Your task to perform on an android device: change the clock display to show seconds Image 0: 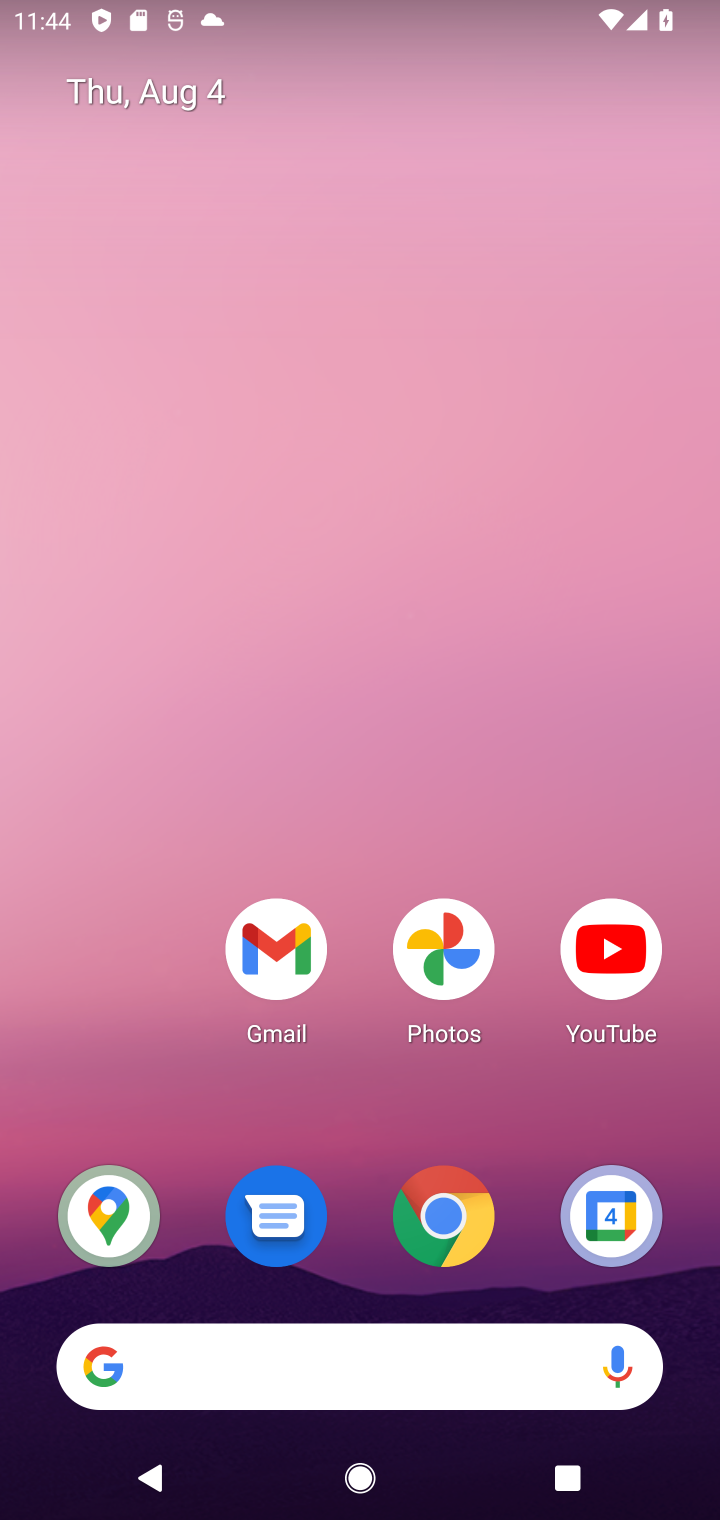
Step 0: drag from (342, 1397) to (396, 268)
Your task to perform on an android device: change the clock display to show seconds Image 1: 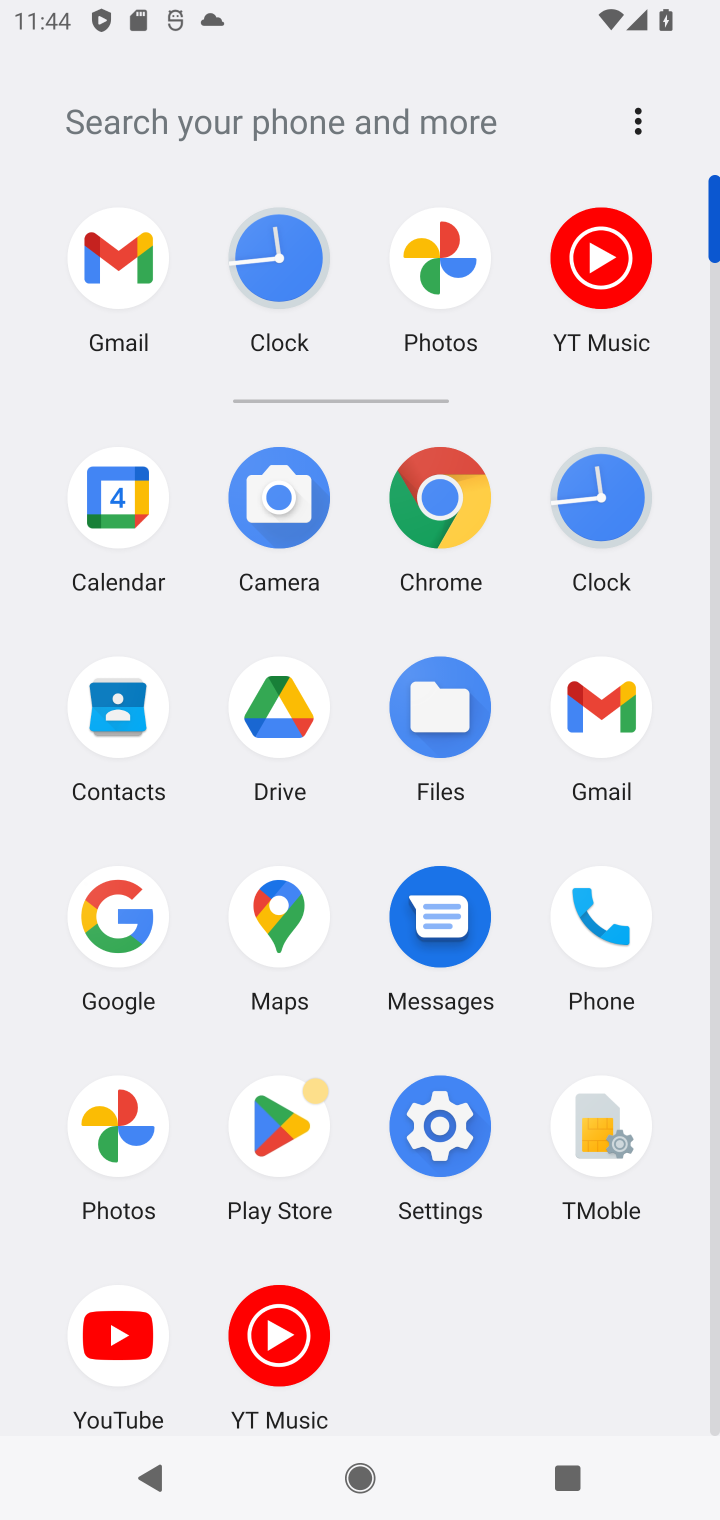
Step 1: click (601, 502)
Your task to perform on an android device: change the clock display to show seconds Image 2: 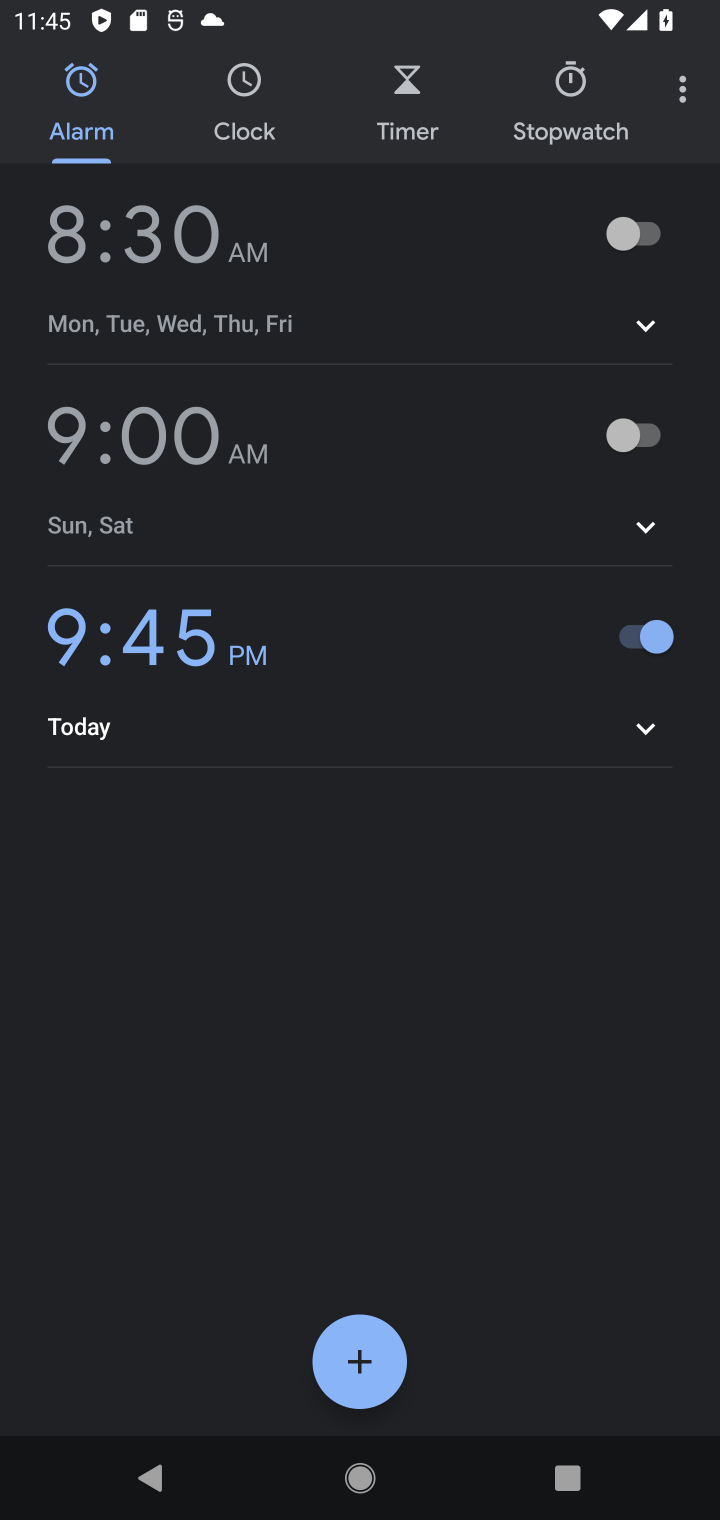
Step 2: click (682, 93)
Your task to perform on an android device: change the clock display to show seconds Image 3: 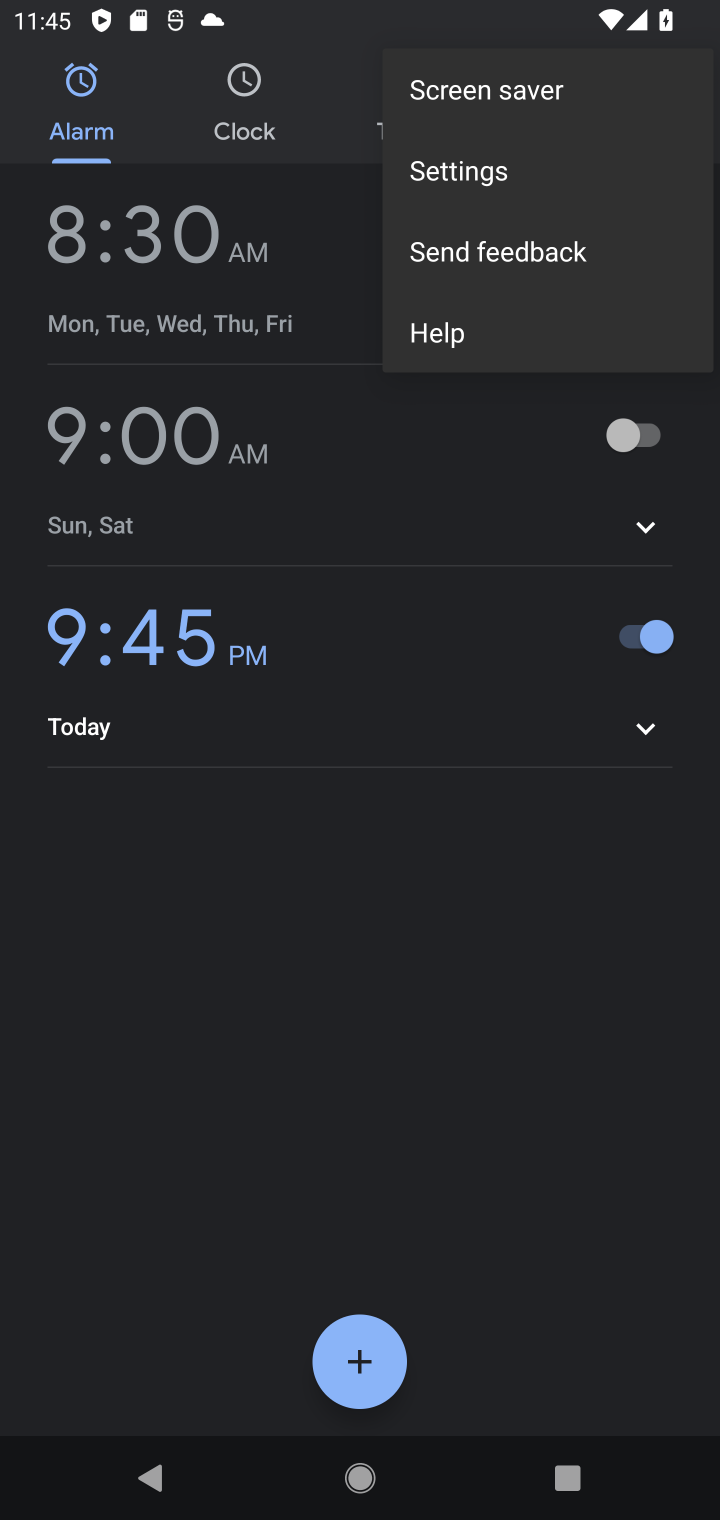
Step 3: click (464, 175)
Your task to perform on an android device: change the clock display to show seconds Image 4: 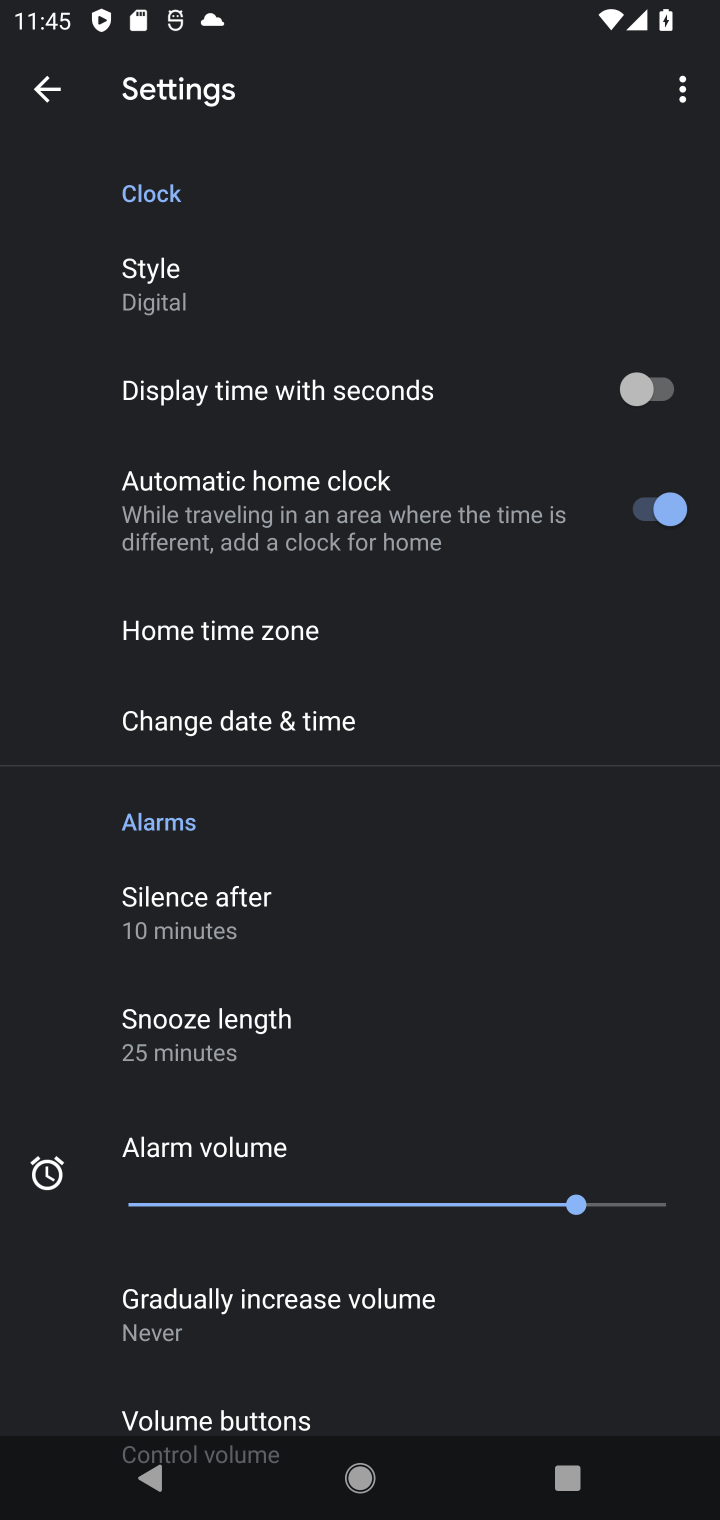
Step 4: click (649, 394)
Your task to perform on an android device: change the clock display to show seconds Image 5: 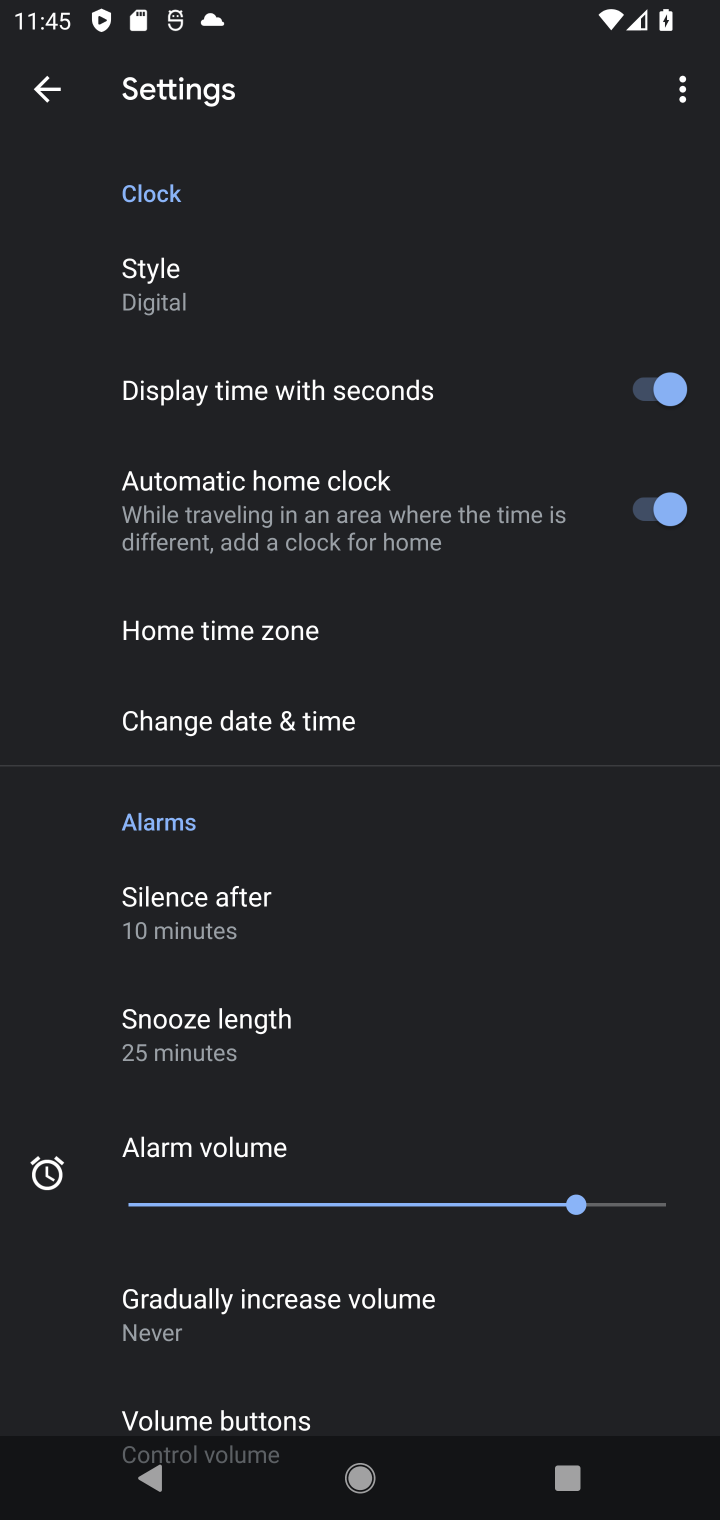
Step 5: task complete